Your task to perform on an android device: Open calendar and show me the third week of next month Image 0: 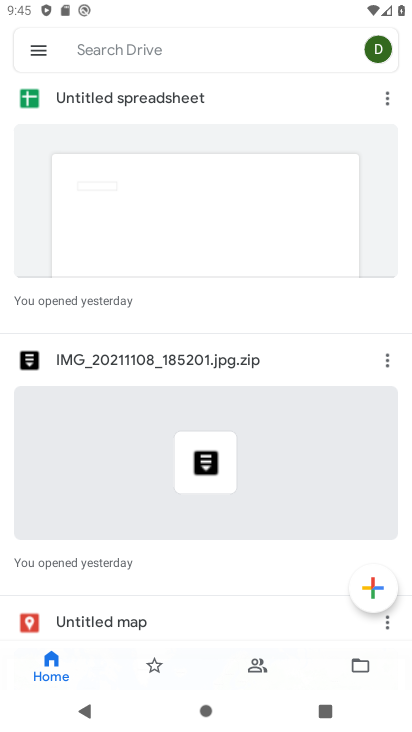
Step 0: press home button
Your task to perform on an android device: Open calendar and show me the third week of next month Image 1: 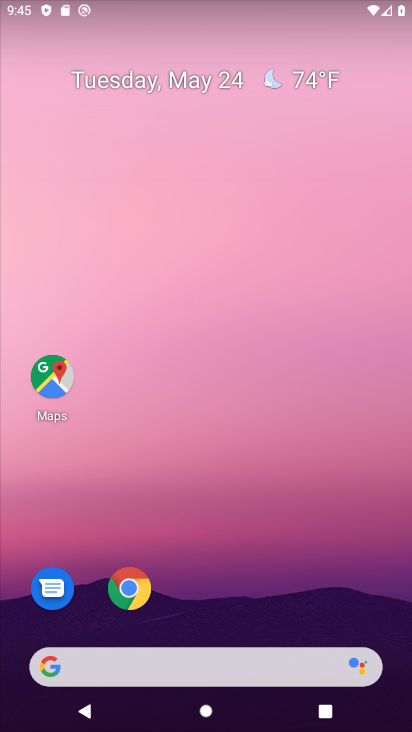
Step 1: click (136, 87)
Your task to perform on an android device: Open calendar and show me the third week of next month Image 2: 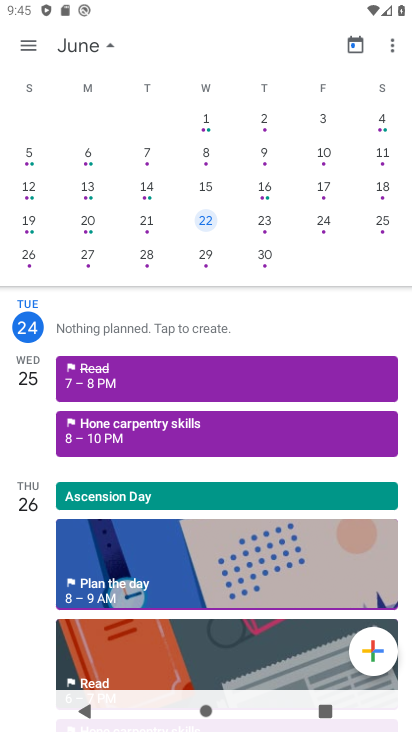
Step 2: click (211, 199)
Your task to perform on an android device: Open calendar and show me the third week of next month Image 3: 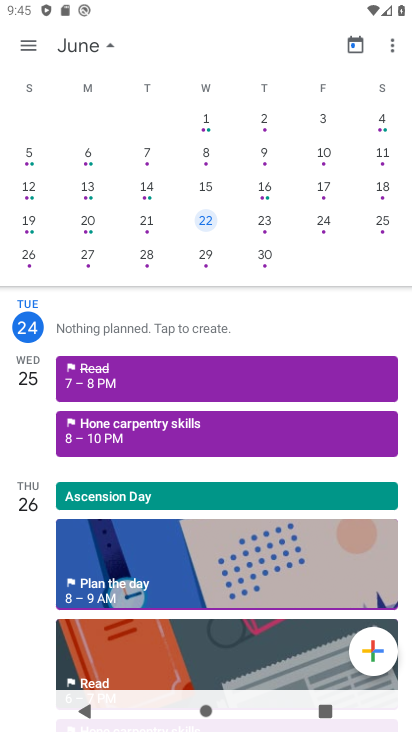
Step 3: click (171, 175)
Your task to perform on an android device: Open calendar and show me the third week of next month Image 4: 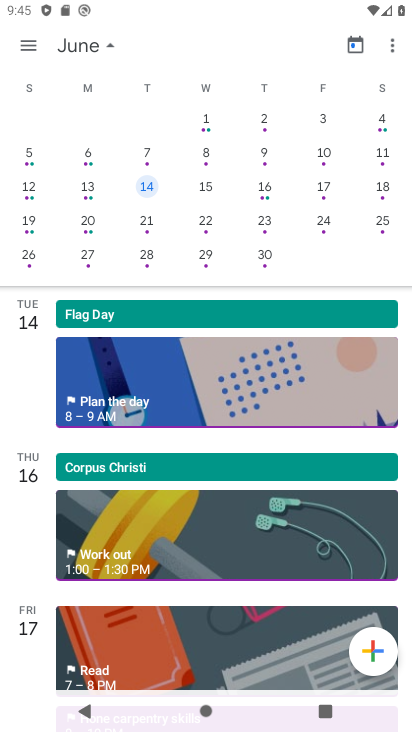
Step 4: task complete